Your task to perform on an android device: Open calendar and show me the first week of next month Image 0: 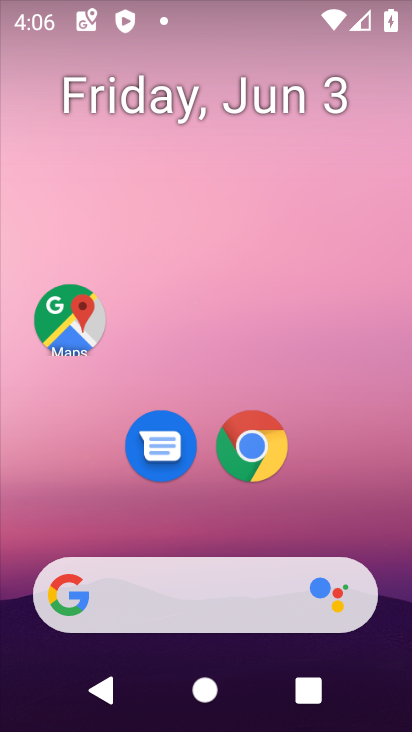
Step 0: task complete